Your task to perform on an android device: Open Google Chrome Image 0: 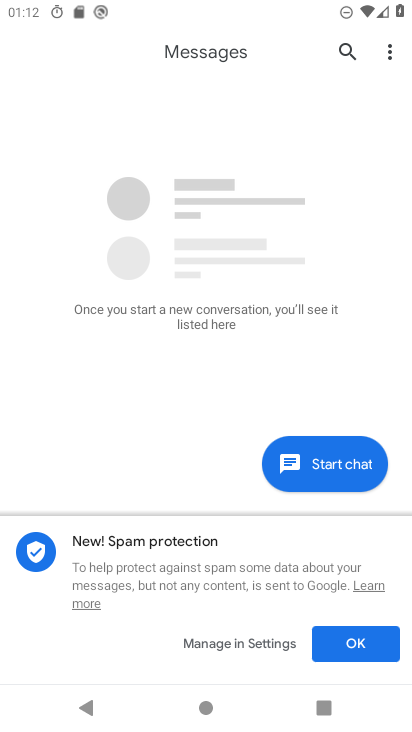
Step 0: press home button
Your task to perform on an android device: Open Google Chrome Image 1: 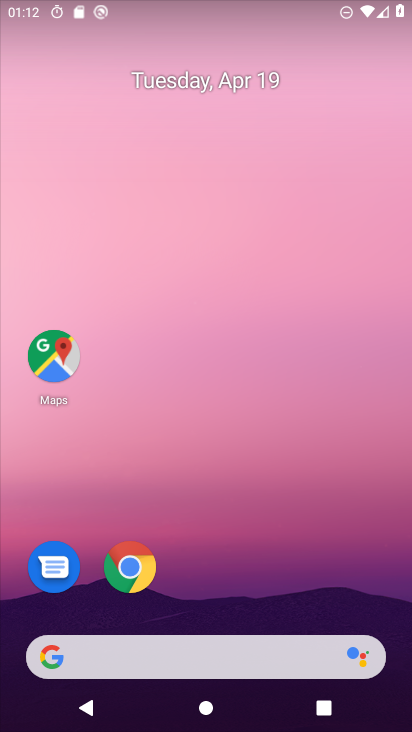
Step 1: drag from (237, 477) to (235, 144)
Your task to perform on an android device: Open Google Chrome Image 2: 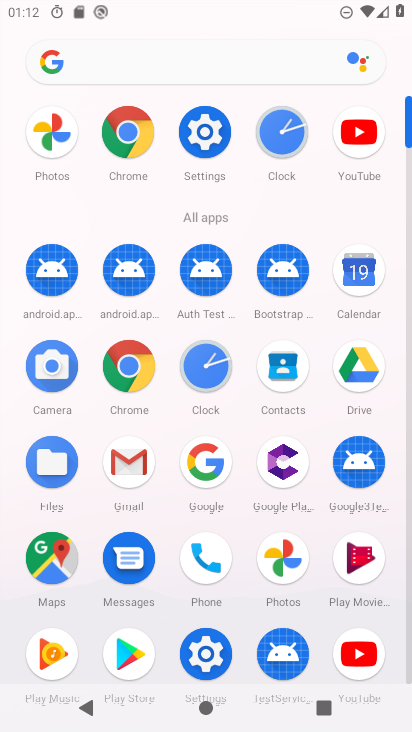
Step 2: click (134, 369)
Your task to perform on an android device: Open Google Chrome Image 3: 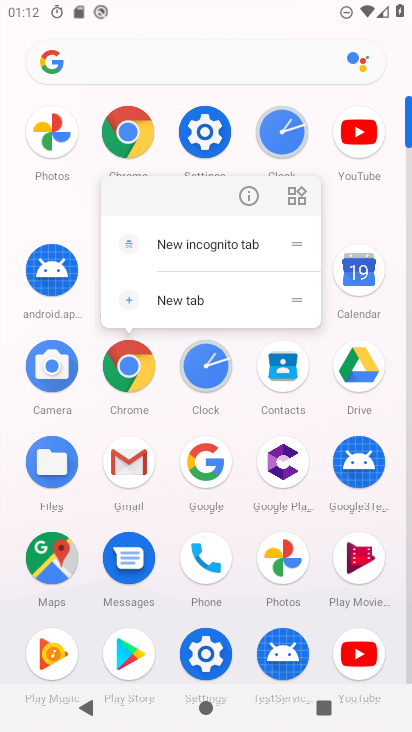
Step 3: click (133, 368)
Your task to perform on an android device: Open Google Chrome Image 4: 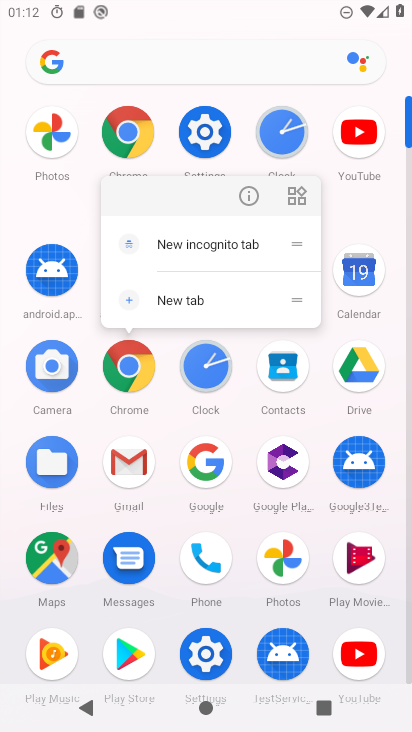
Step 4: click (129, 377)
Your task to perform on an android device: Open Google Chrome Image 5: 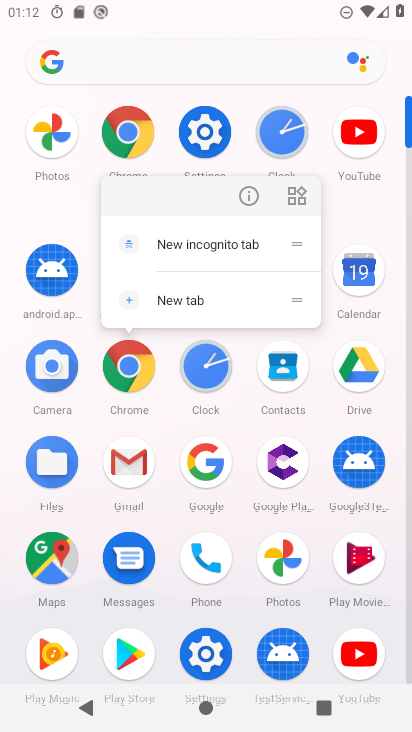
Step 5: click (141, 369)
Your task to perform on an android device: Open Google Chrome Image 6: 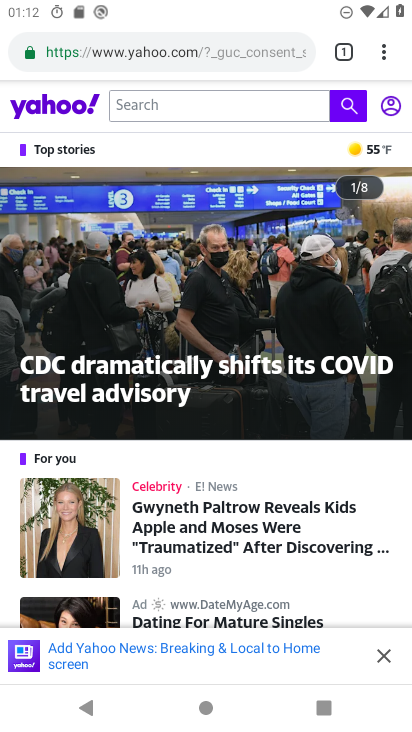
Step 6: task complete